Your task to perform on an android device: turn on showing notifications on the lock screen Image 0: 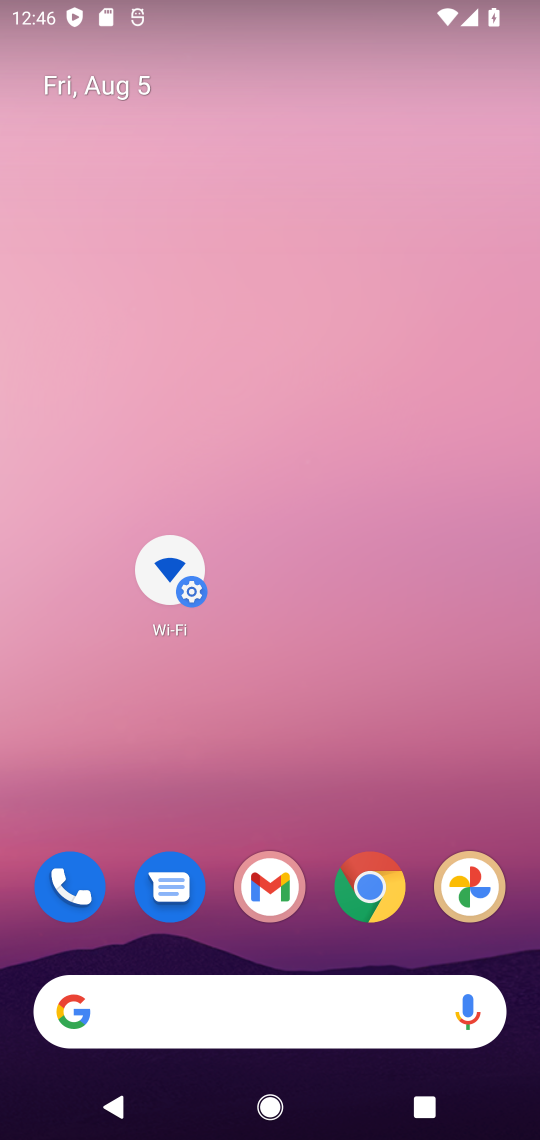
Step 0: drag from (316, 1005) to (304, 30)
Your task to perform on an android device: turn on showing notifications on the lock screen Image 1: 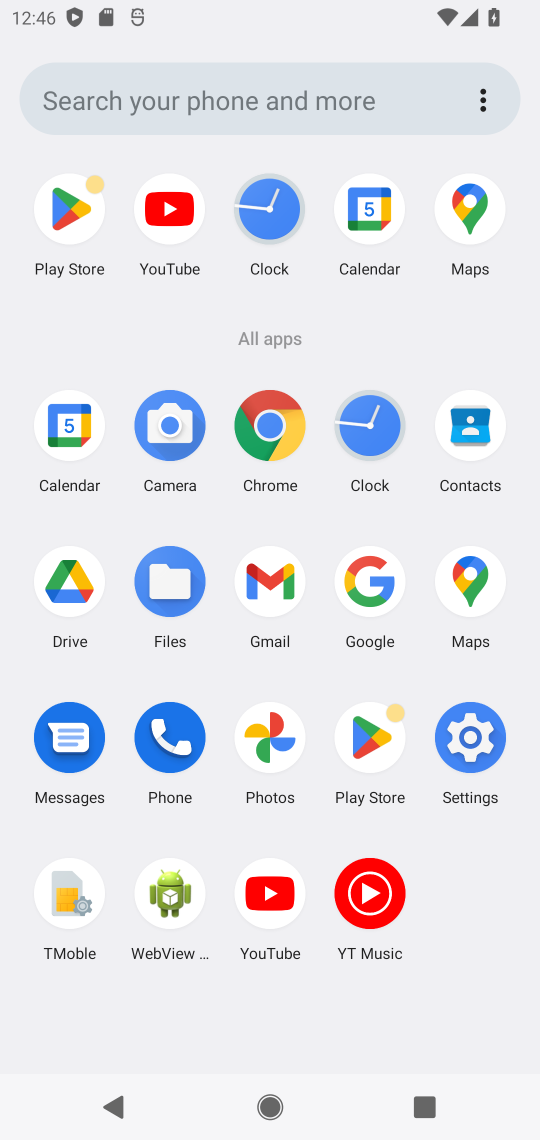
Step 1: click (463, 768)
Your task to perform on an android device: turn on showing notifications on the lock screen Image 2: 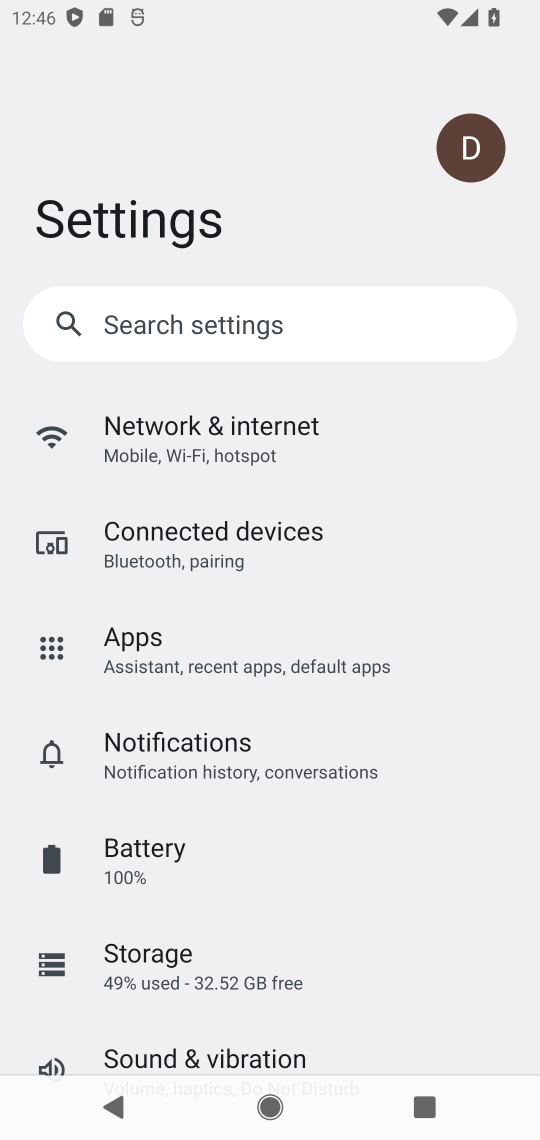
Step 2: drag from (295, 970) to (376, 301)
Your task to perform on an android device: turn on showing notifications on the lock screen Image 3: 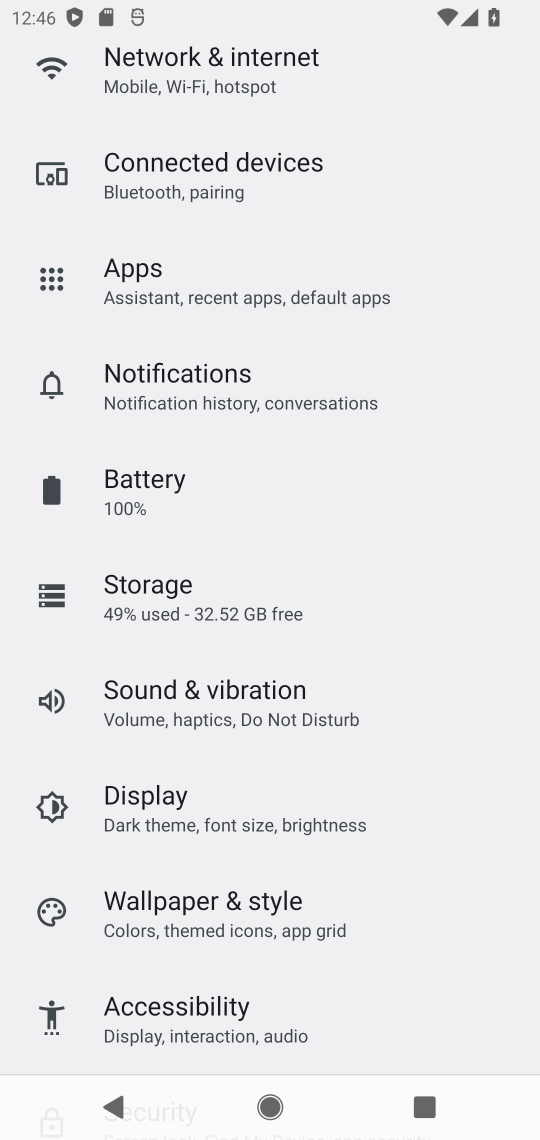
Step 3: click (234, 381)
Your task to perform on an android device: turn on showing notifications on the lock screen Image 4: 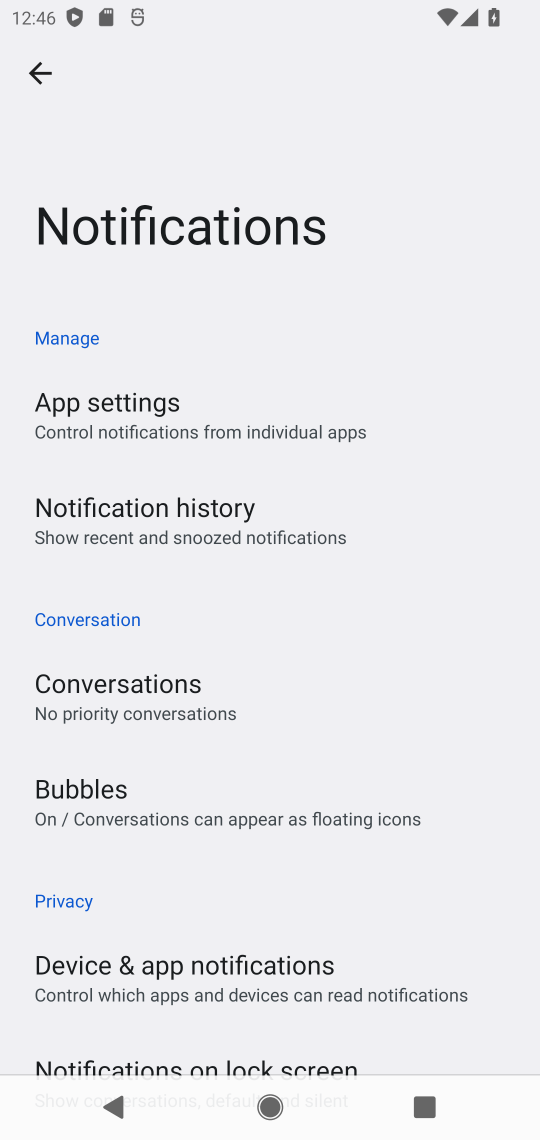
Step 4: click (321, 1048)
Your task to perform on an android device: turn on showing notifications on the lock screen Image 5: 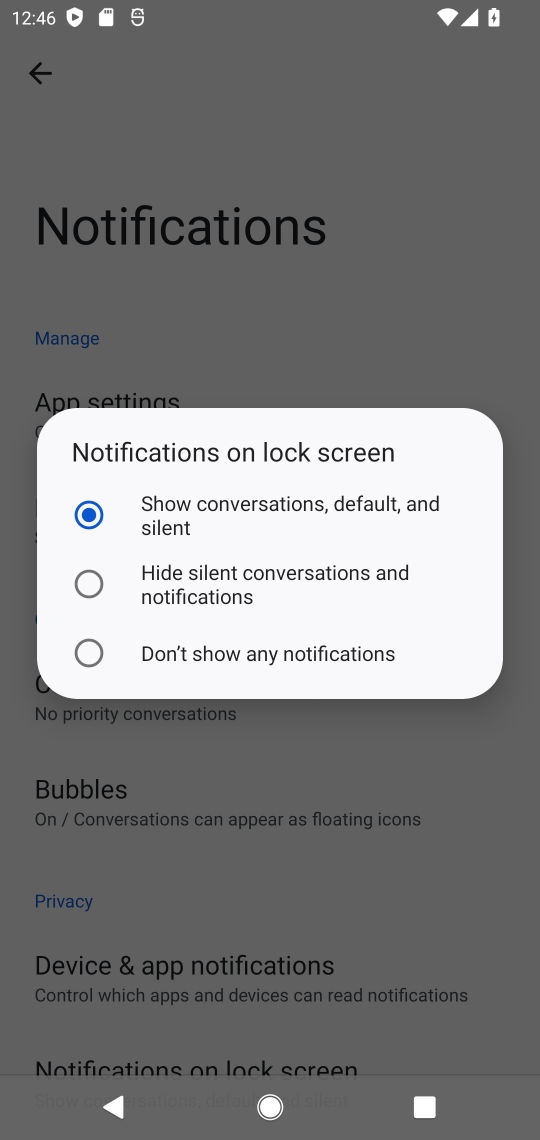
Step 5: click (193, 512)
Your task to perform on an android device: turn on showing notifications on the lock screen Image 6: 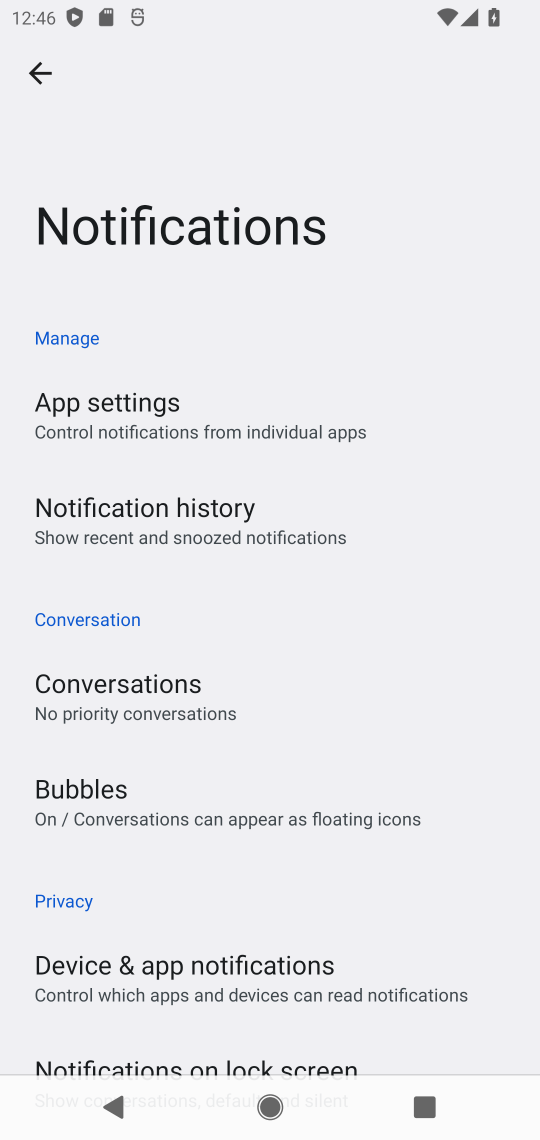
Step 6: task complete